Your task to perform on an android device: Search for seafood restaurants on Google Maps Image 0: 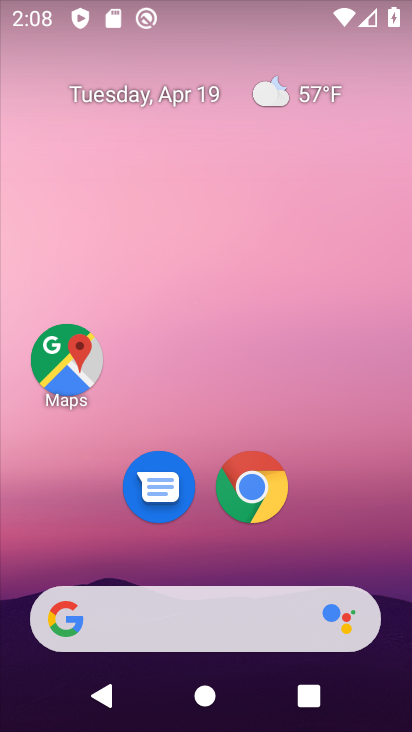
Step 0: click (91, 352)
Your task to perform on an android device: Search for seafood restaurants on Google Maps Image 1: 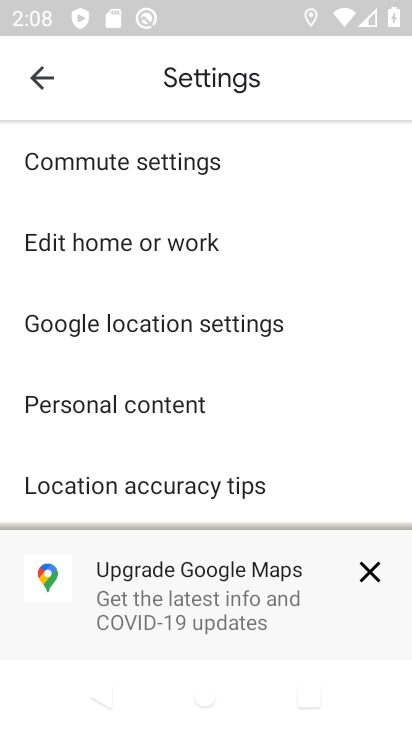
Step 1: press home button
Your task to perform on an android device: Search for seafood restaurants on Google Maps Image 2: 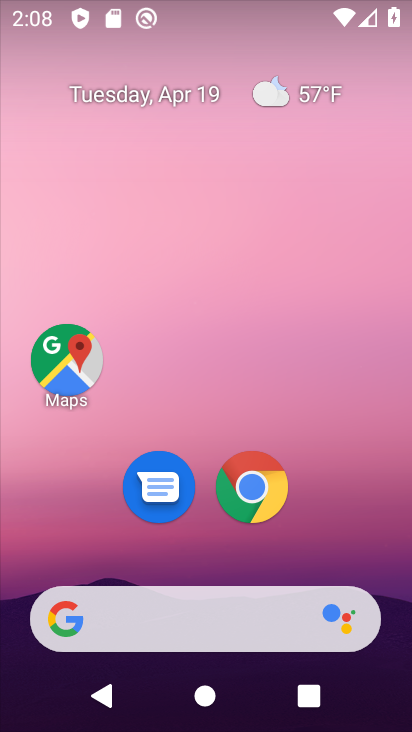
Step 2: click (68, 361)
Your task to perform on an android device: Search for seafood restaurants on Google Maps Image 3: 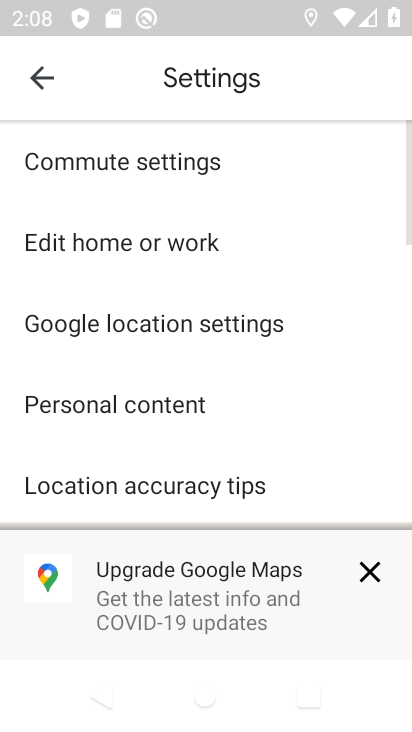
Step 3: click (48, 83)
Your task to perform on an android device: Search for seafood restaurants on Google Maps Image 4: 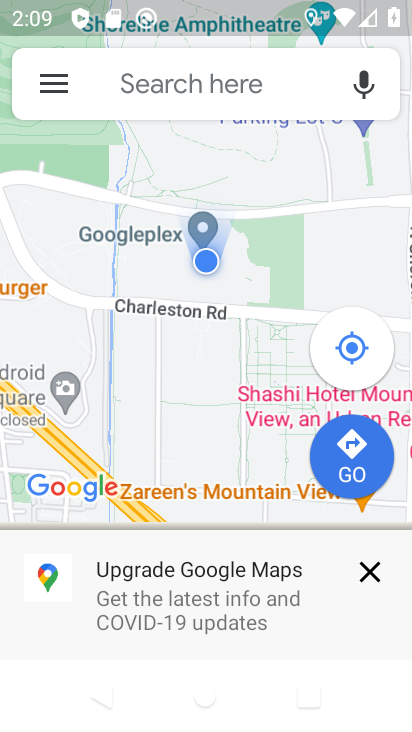
Step 4: click (168, 95)
Your task to perform on an android device: Search for seafood restaurants on Google Maps Image 5: 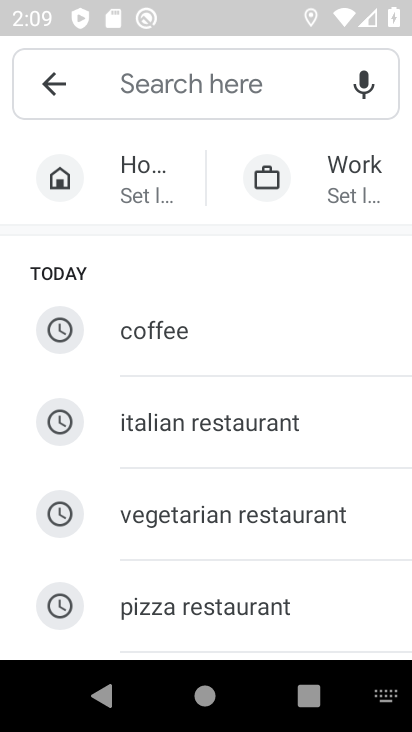
Step 5: type "seafood rtestaurant"
Your task to perform on an android device: Search for seafood restaurants on Google Maps Image 6: 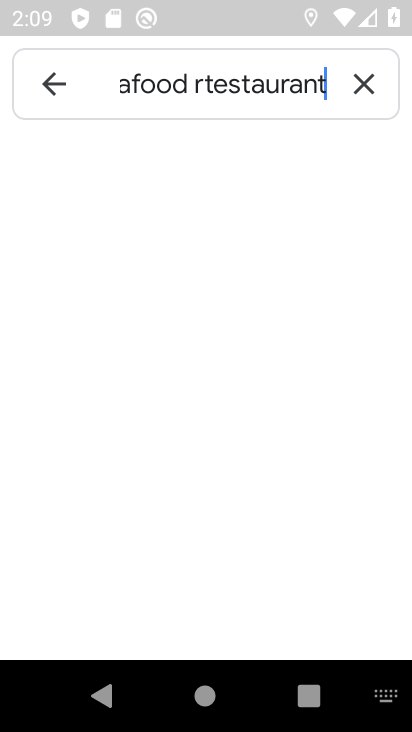
Step 6: type ""
Your task to perform on an android device: Search for seafood restaurants on Google Maps Image 7: 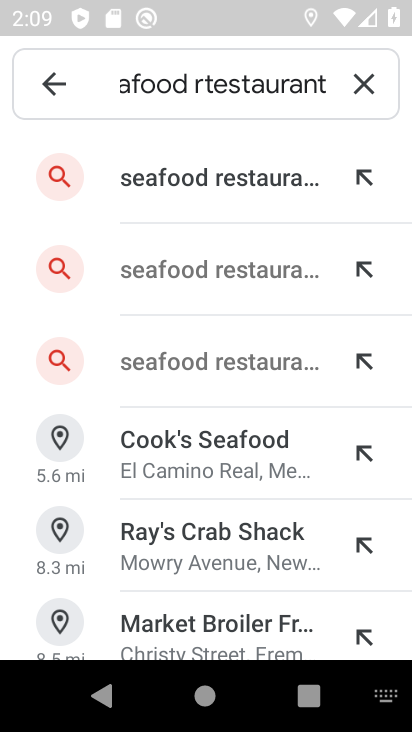
Step 7: click (243, 167)
Your task to perform on an android device: Search for seafood restaurants on Google Maps Image 8: 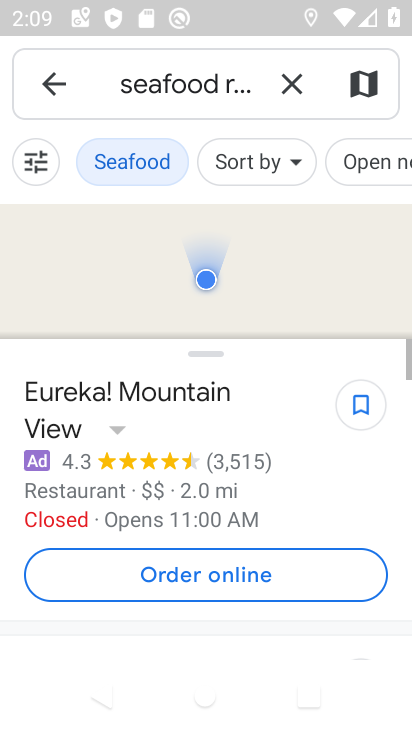
Step 8: task complete